Your task to perform on an android device: Open Google Image 0: 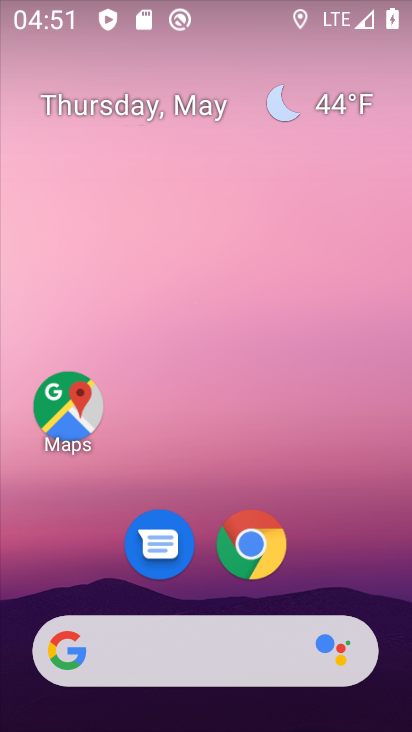
Step 0: drag from (331, 593) to (360, 34)
Your task to perform on an android device: Open Google Image 1: 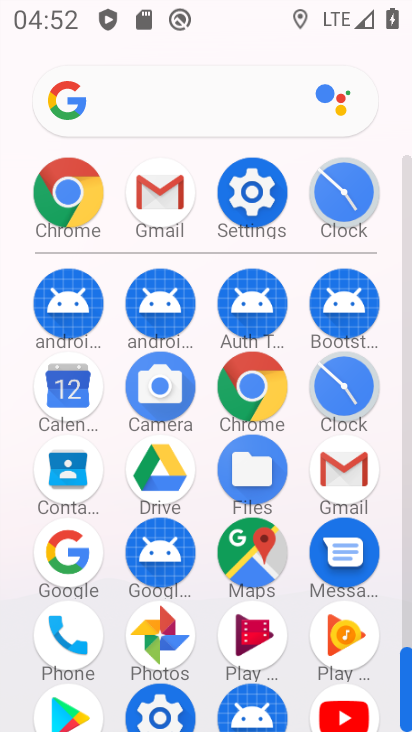
Step 1: click (65, 546)
Your task to perform on an android device: Open Google Image 2: 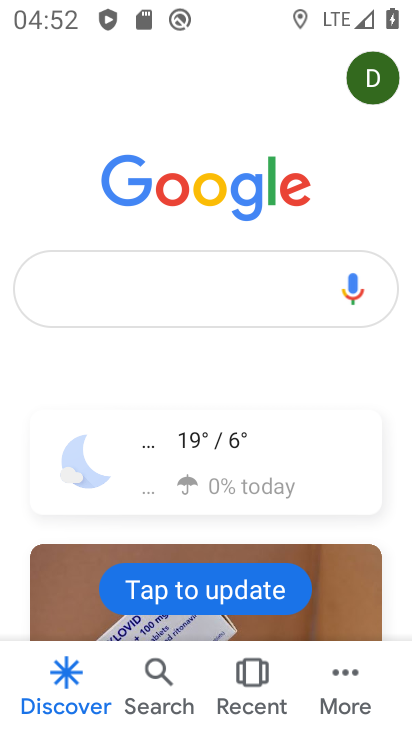
Step 2: task complete